Your task to perform on an android device: manage bookmarks in the chrome app Image 0: 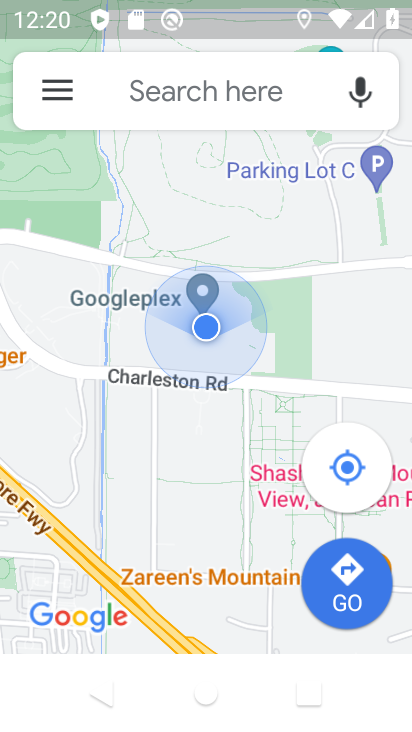
Step 0: press home button
Your task to perform on an android device: manage bookmarks in the chrome app Image 1: 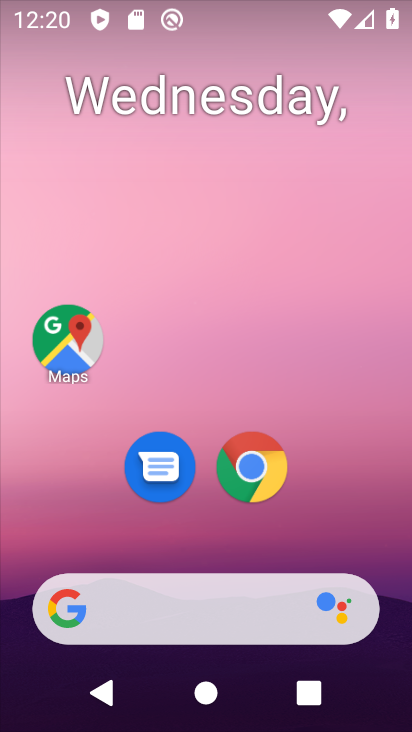
Step 1: drag from (363, 552) to (369, 100)
Your task to perform on an android device: manage bookmarks in the chrome app Image 2: 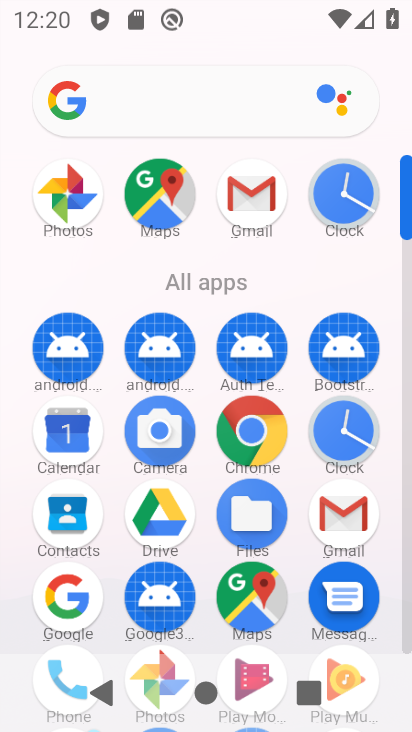
Step 2: click (274, 439)
Your task to perform on an android device: manage bookmarks in the chrome app Image 3: 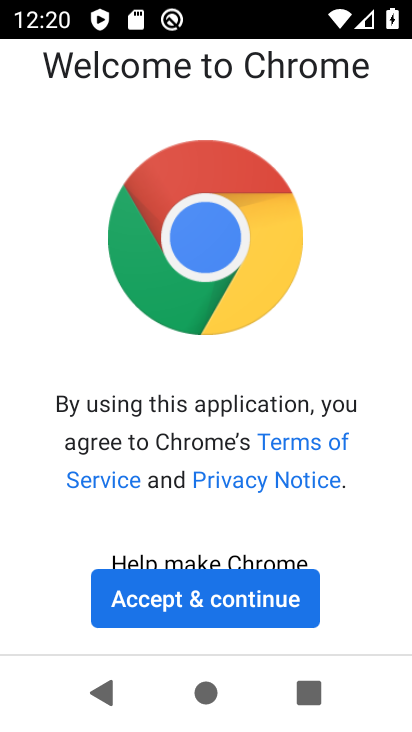
Step 3: click (216, 603)
Your task to perform on an android device: manage bookmarks in the chrome app Image 4: 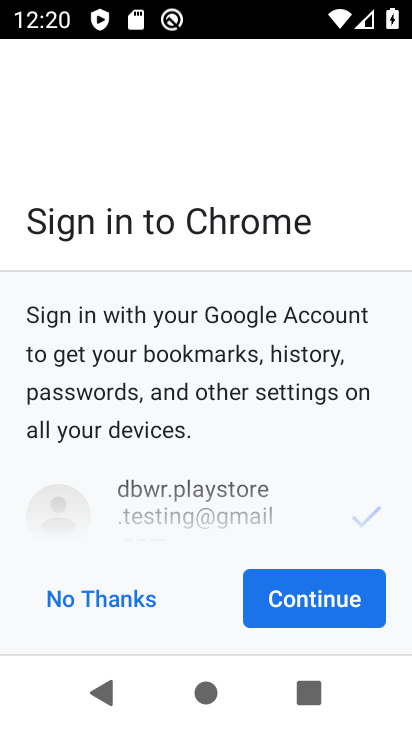
Step 4: click (328, 606)
Your task to perform on an android device: manage bookmarks in the chrome app Image 5: 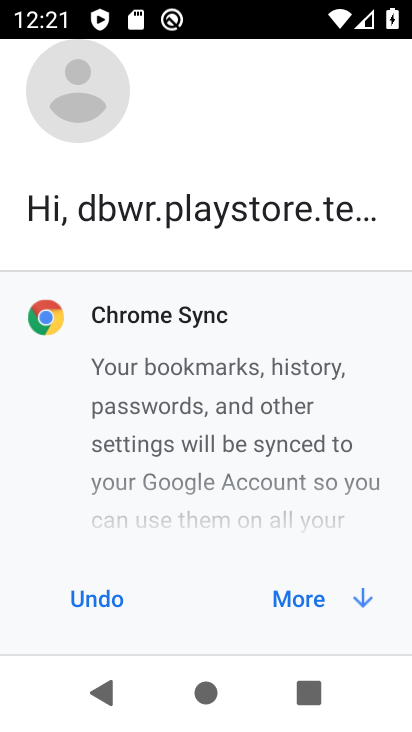
Step 5: click (317, 598)
Your task to perform on an android device: manage bookmarks in the chrome app Image 6: 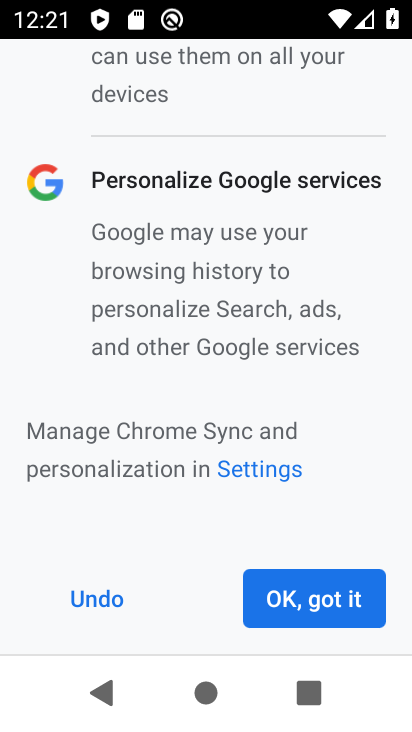
Step 6: click (317, 598)
Your task to perform on an android device: manage bookmarks in the chrome app Image 7: 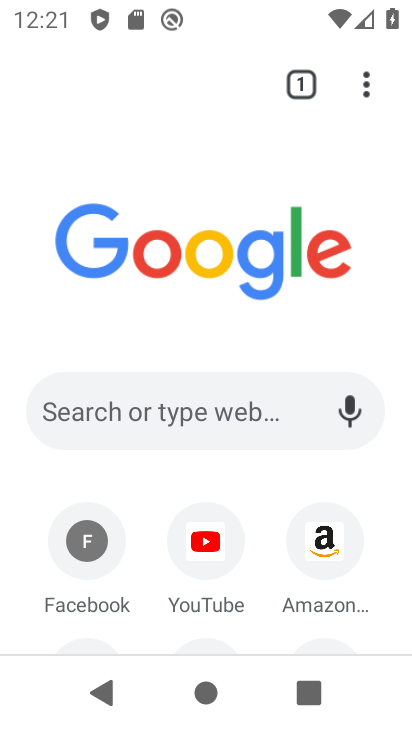
Step 7: click (371, 94)
Your task to perform on an android device: manage bookmarks in the chrome app Image 8: 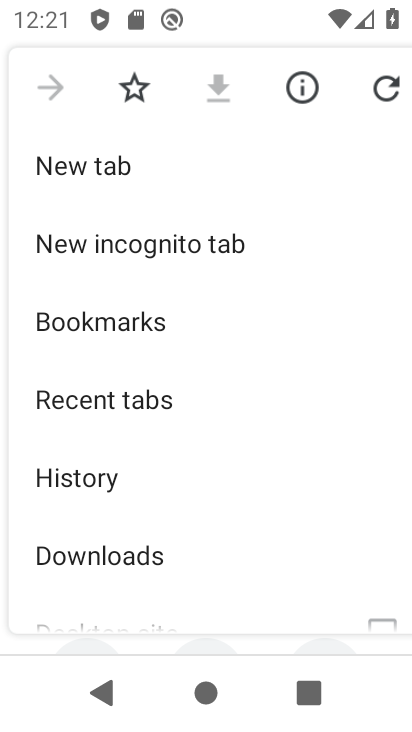
Step 8: drag from (304, 496) to (295, 351)
Your task to perform on an android device: manage bookmarks in the chrome app Image 9: 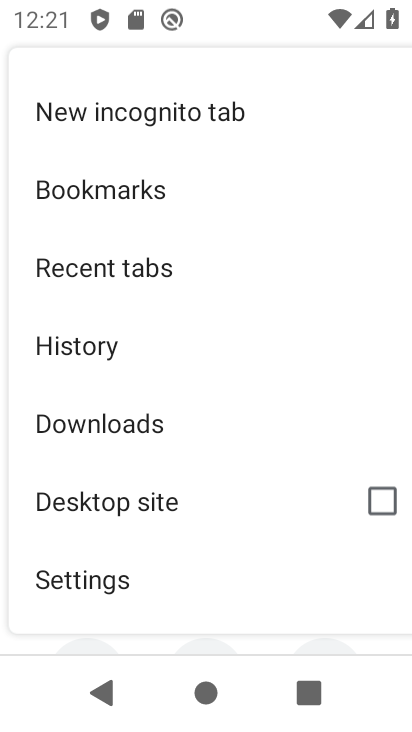
Step 9: drag from (210, 528) to (250, 317)
Your task to perform on an android device: manage bookmarks in the chrome app Image 10: 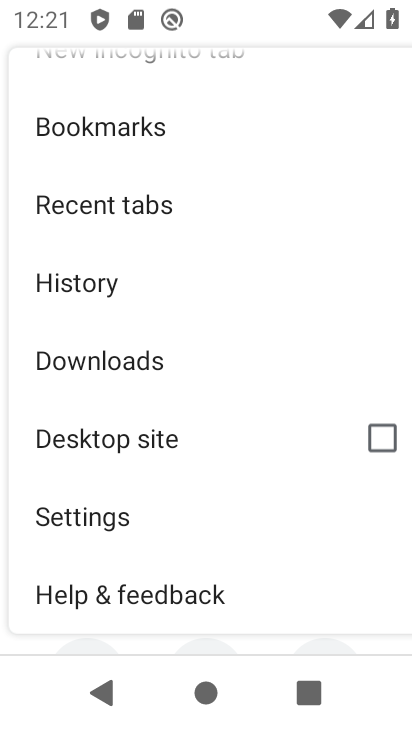
Step 10: click (126, 126)
Your task to perform on an android device: manage bookmarks in the chrome app Image 11: 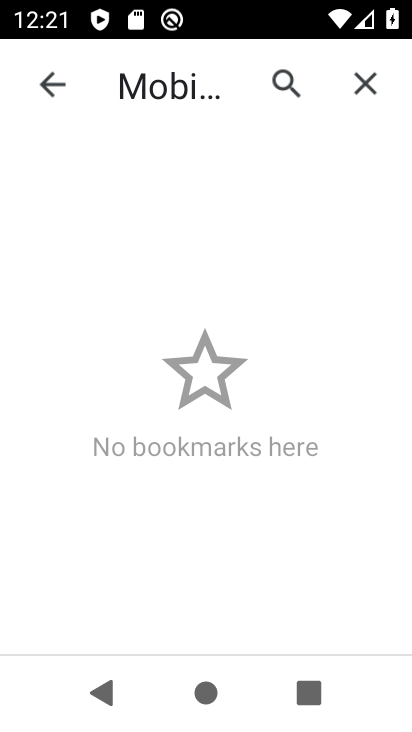
Step 11: task complete